Your task to perform on an android device: toggle priority inbox in the gmail app Image 0: 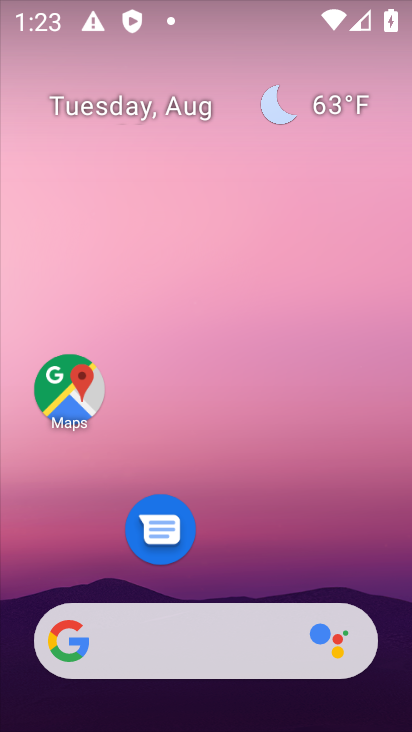
Step 0: drag from (246, 543) to (193, 6)
Your task to perform on an android device: toggle priority inbox in the gmail app Image 1: 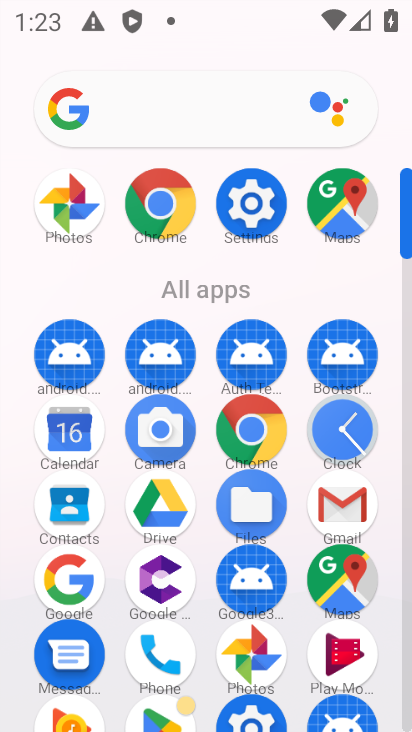
Step 1: click (355, 502)
Your task to perform on an android device: toggle priority inbox in the gmail app Image 2: 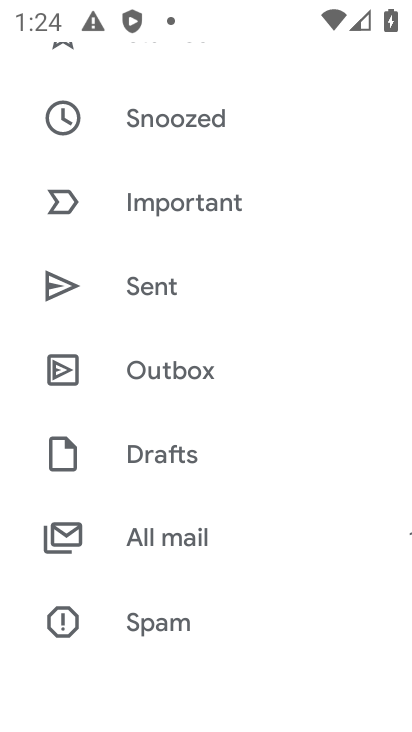
Step 2: drag from (193, 621) to (192, 355)
Your task to perform on an android device: toggle priority inbox in the gmail app Image 3: 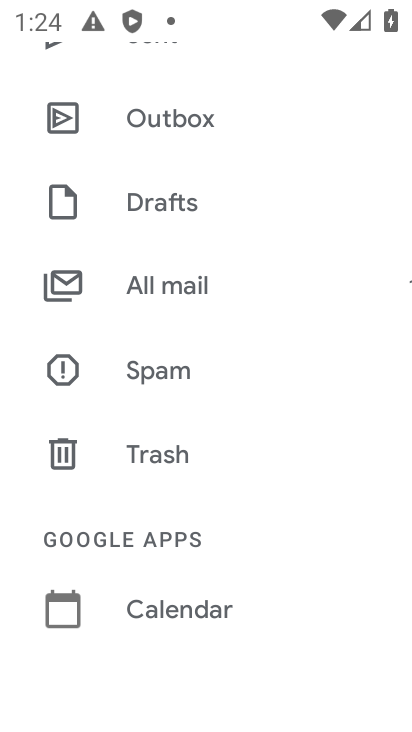
Step 3: drag from (206, 637) to (206, 324)
Your task to perform on an android device: toggle priority inbox in the gmail app Image 4: 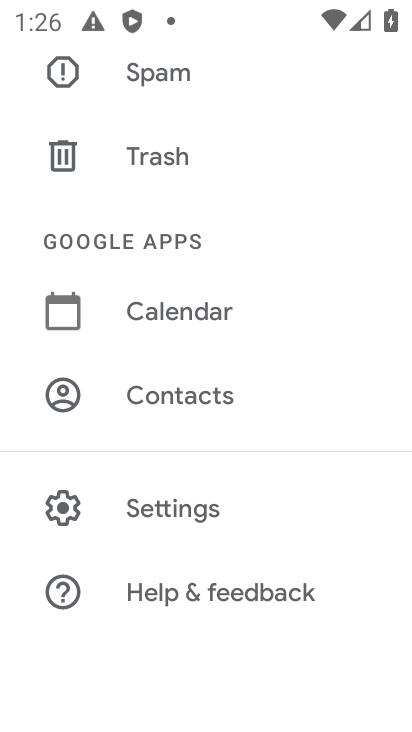
Step 4: click (146, 484)
Your task to perform on an android device: toggle priority inbox in the gmail app Image 5: 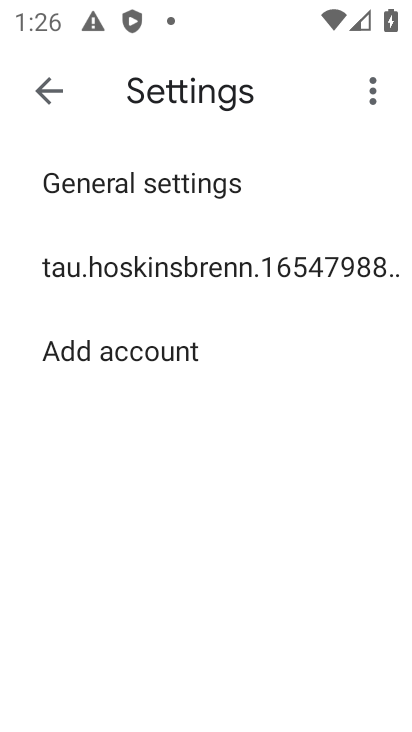
Step 5: task complete